Your task to perform on an android device: install app "Gmail" Image 0: 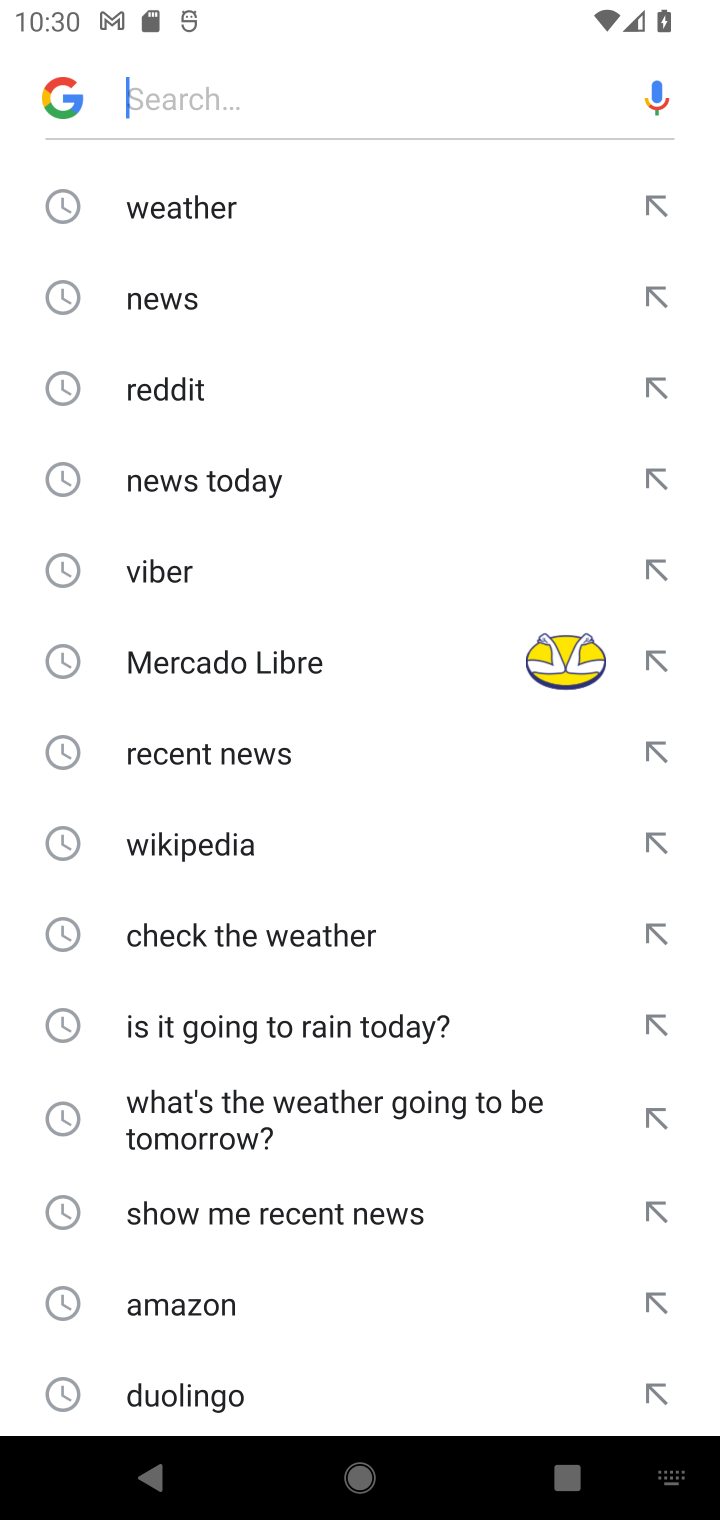
Step 0: press home button
Your task to perform on an android device: install app "Gmail" Image 1: 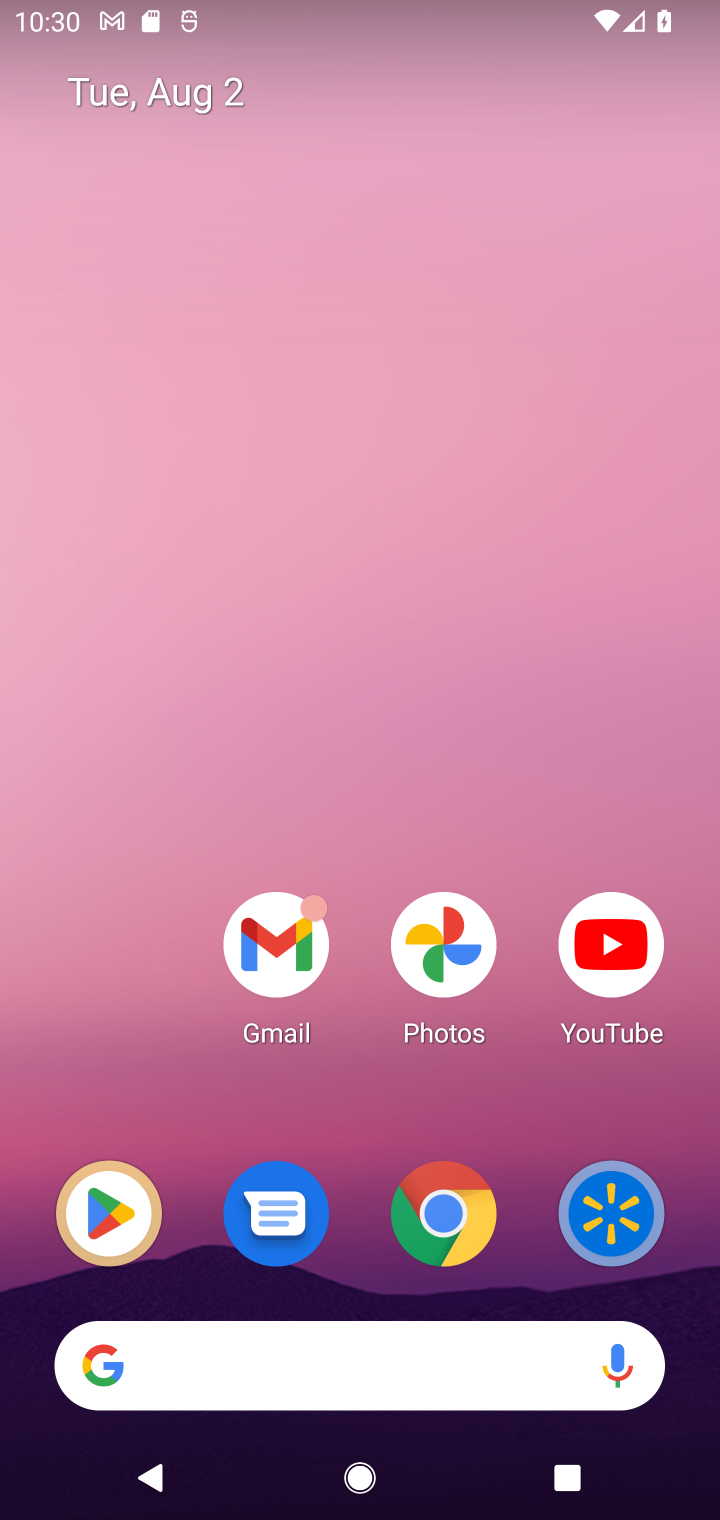
Step 1: click (97, 1213)
Your task to perform on an android device: install app "Gmail" Image 2: 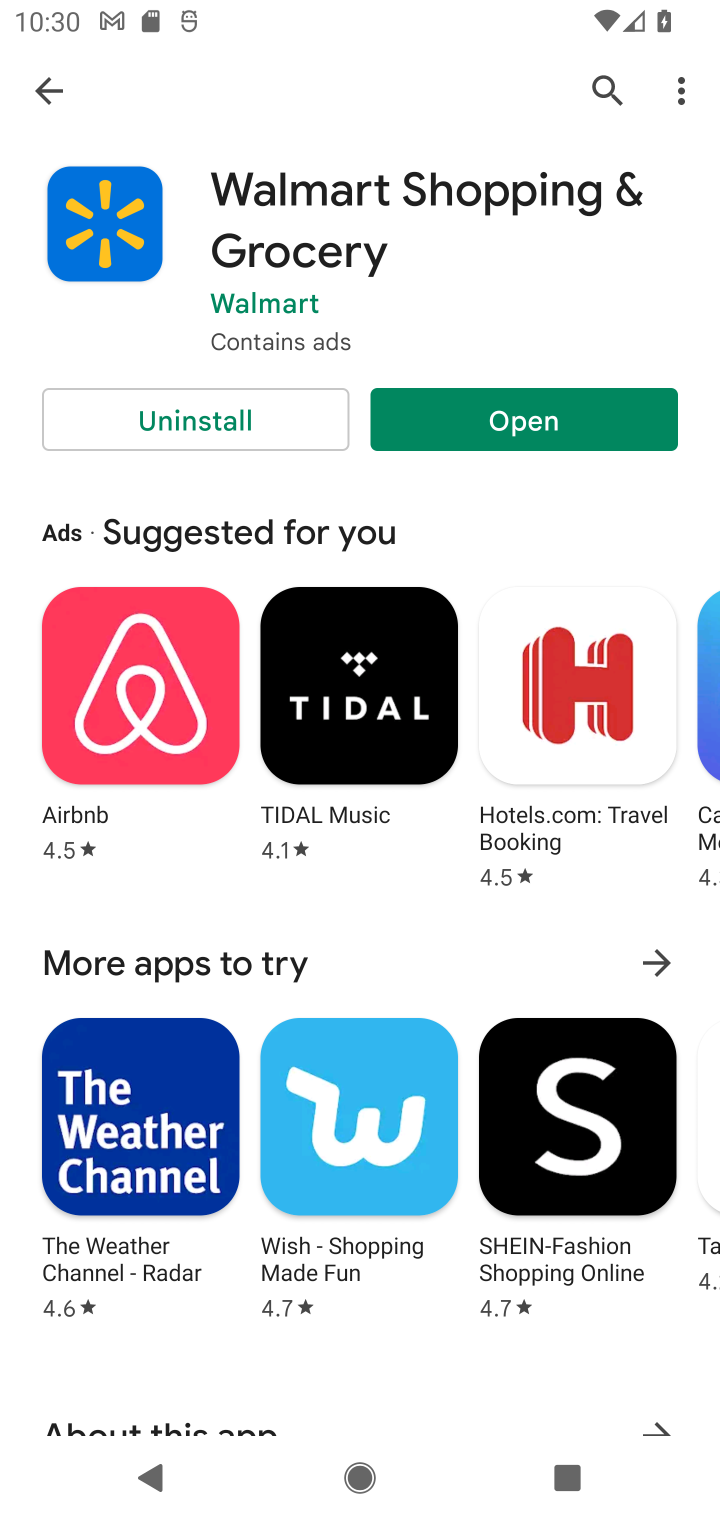
Step 2: click (45, 81)
Your task to perform on an android device: install app "Gmail" Image 3: 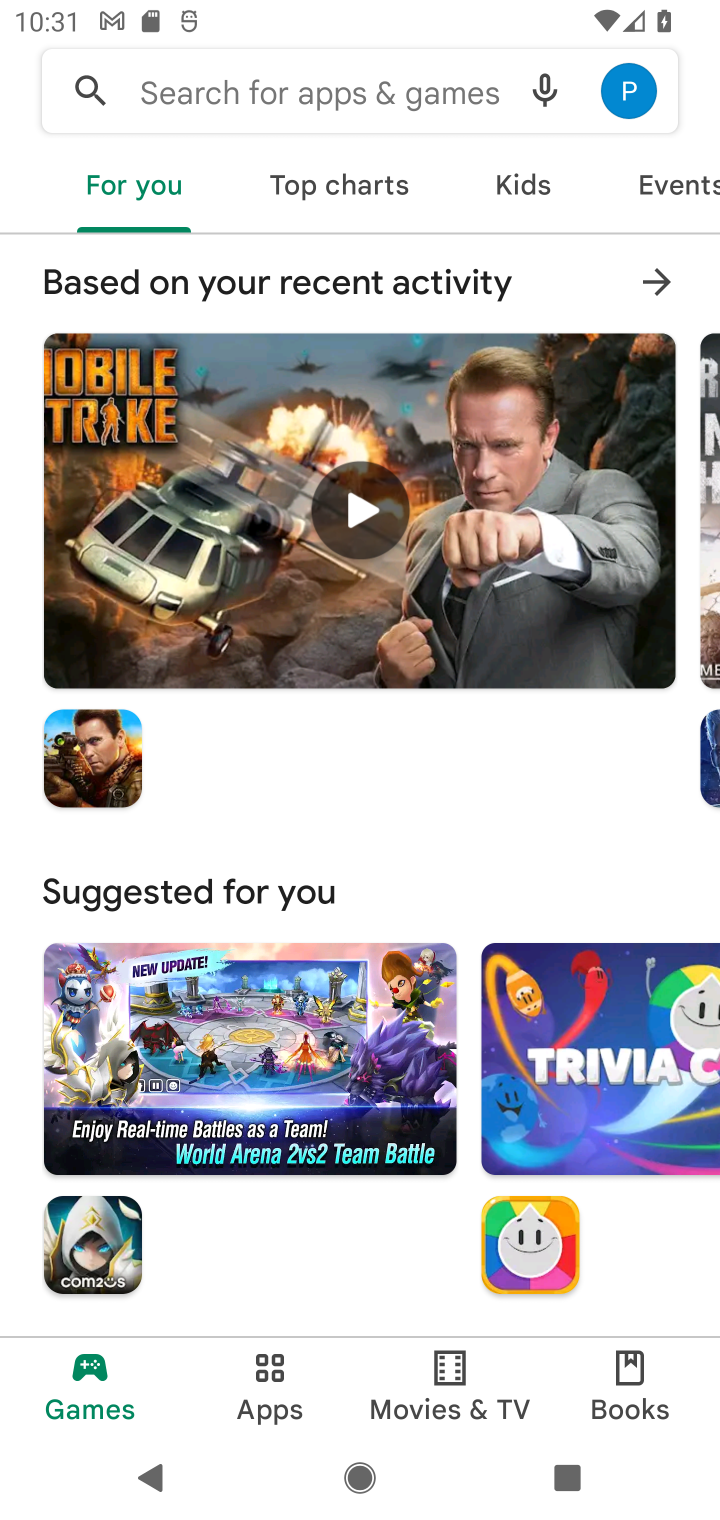
Step 3: click (344, 95)
Your task to perform on an android device: install app "Gmail" Image 4: 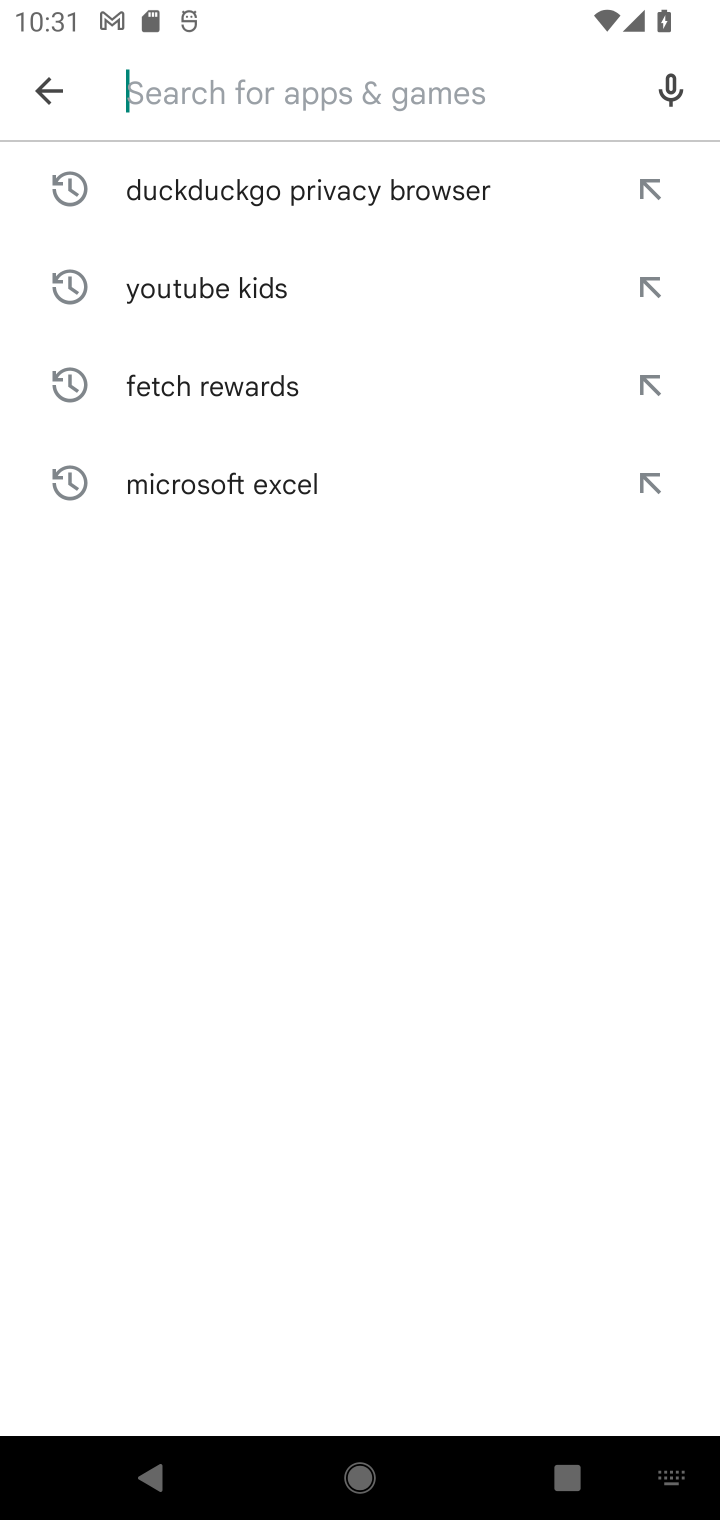
Step 4: type "Gmail"
Your task to perform on an android device: install app "Gmail" Image 5: 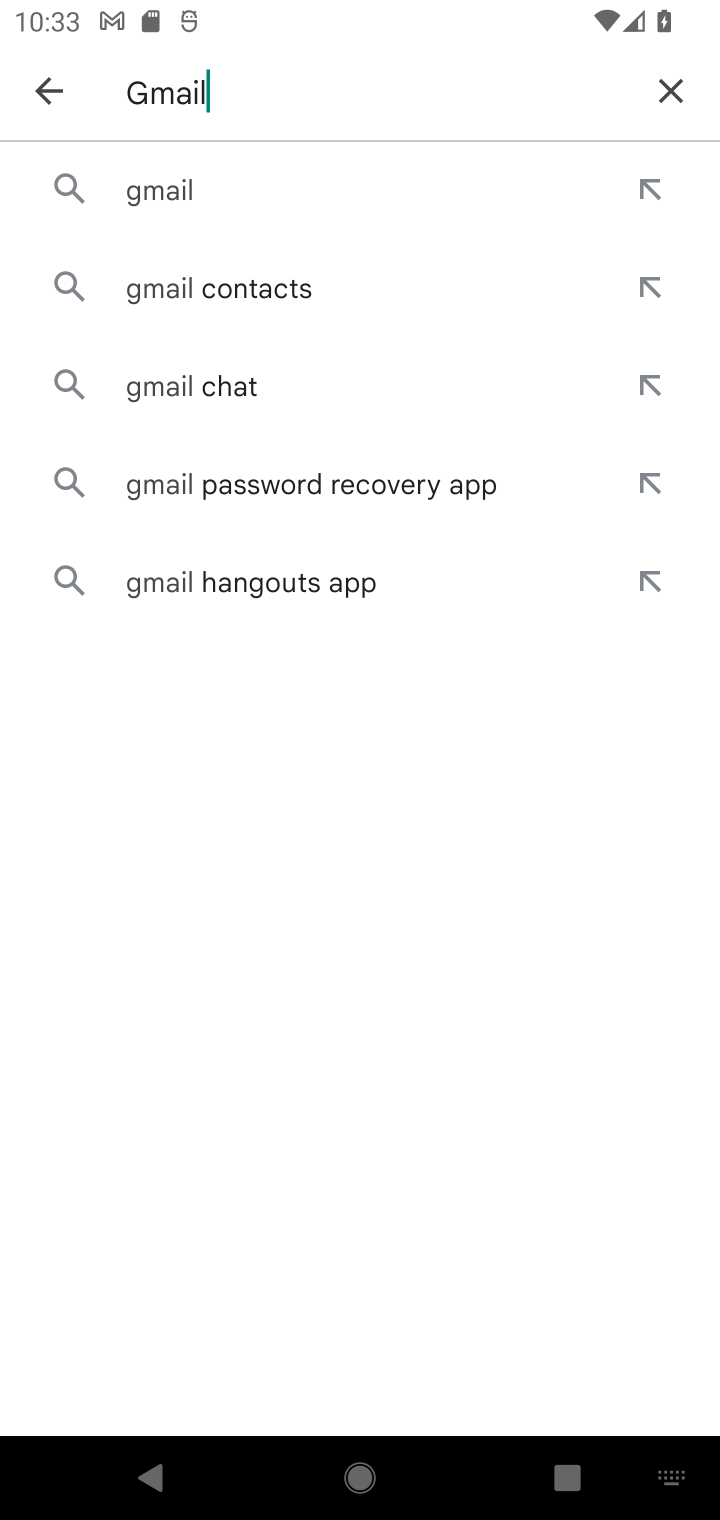
Step 5: click (142, 182)
Your task to perform on an android device: install app "Gmail" Image 6: 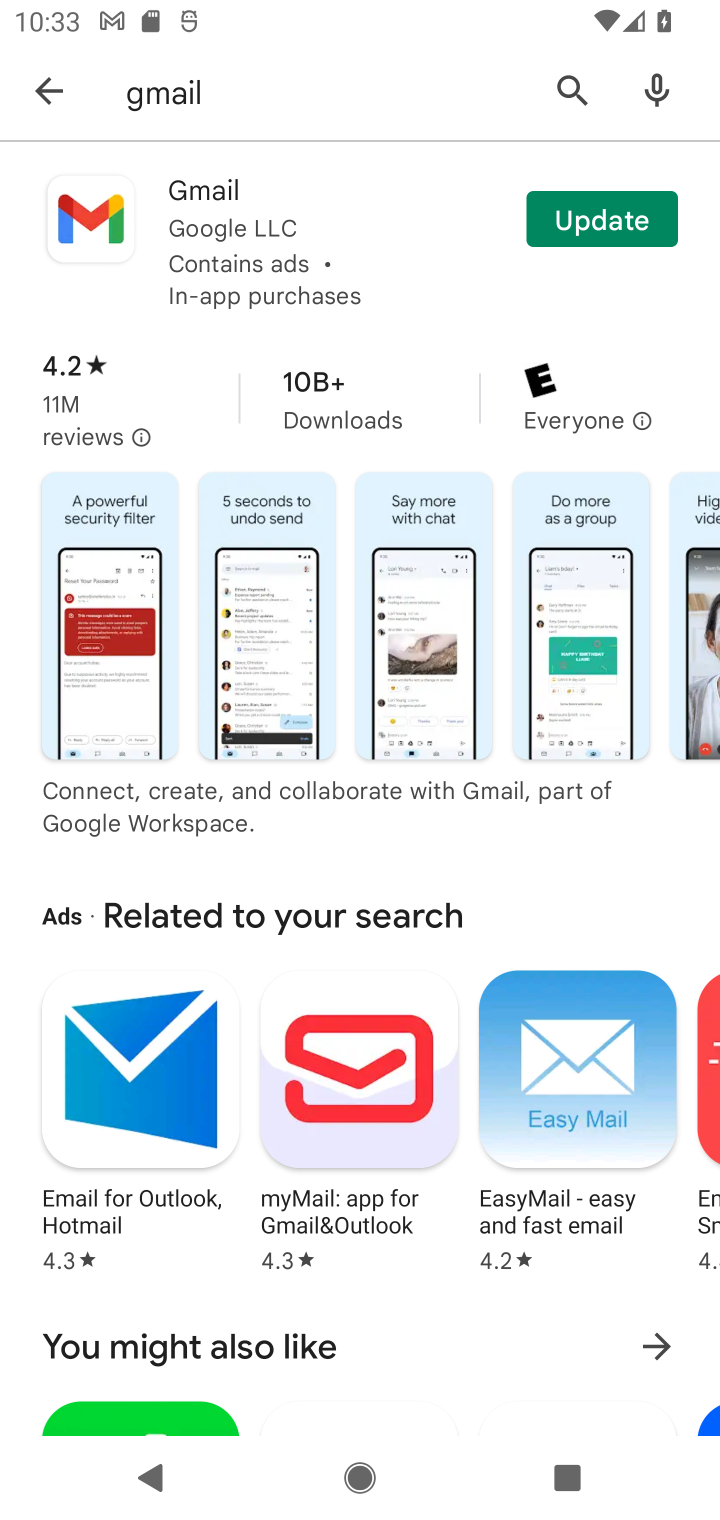
Step 6: task complete